Your task to perform on an android device: Open the stopwatch Image 0: 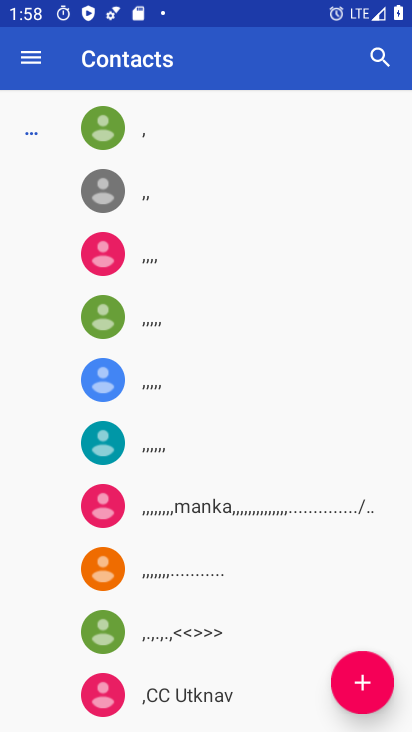
Step 0: drag from (148, 660) to (146, 449)
Your task to perform on an android device: Open the stopwatch Image 1: 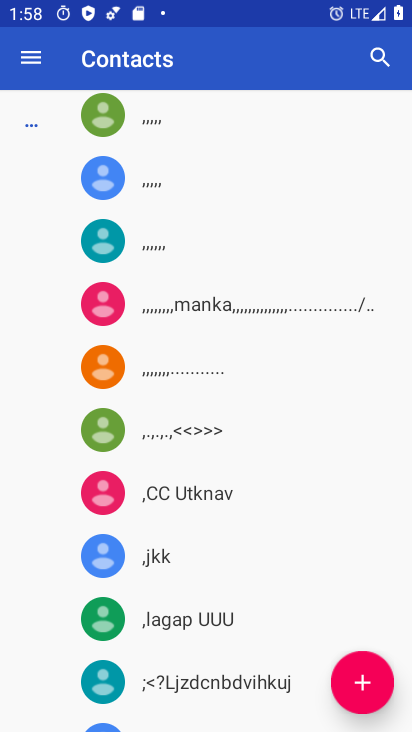
Step 1: press home button
Your task to perform on an android device: Open the stopwatch Image 2: 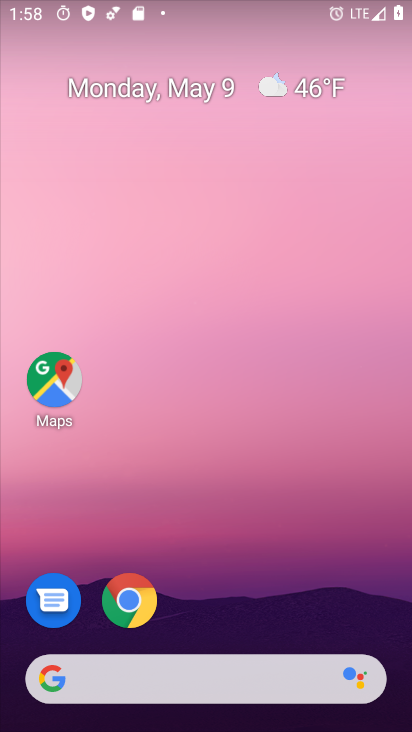
Step 2: drag from (211, 618) to (224, 184)
Your task to perform on an android device: Open the stopwatch Image 3: 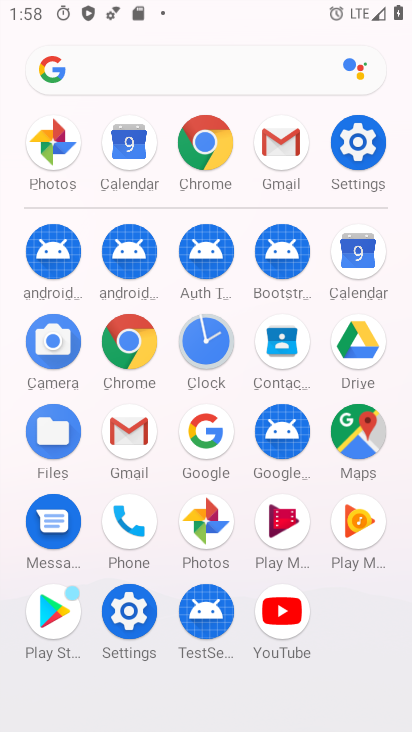
Step 3: click (195, 361)
Your task to perform on an android device: Open the stopwatch Image 4: 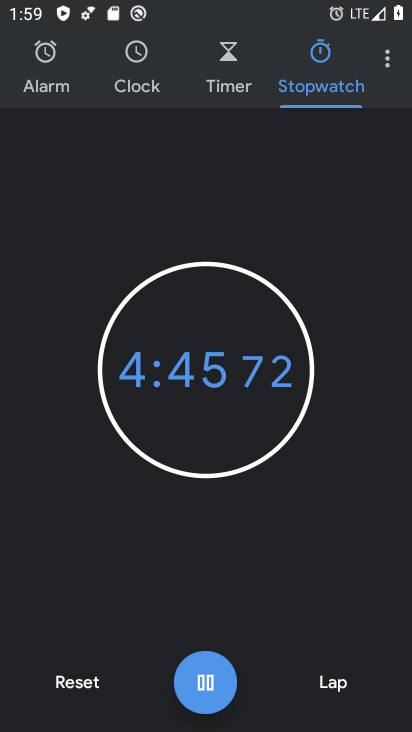
Step 4: task complete